Your task to perform on an android device: Go to location settings Image 0: 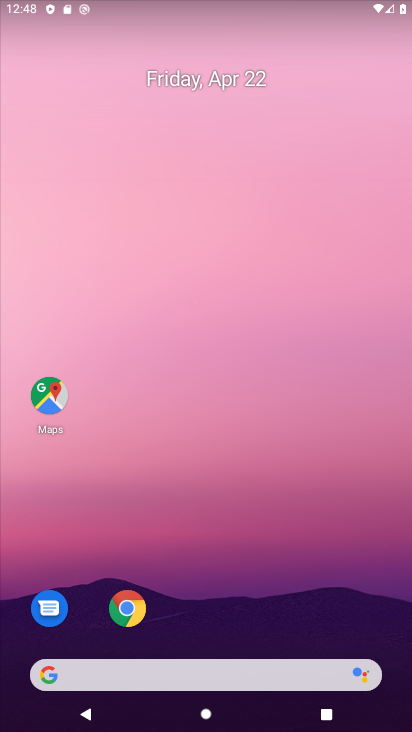
Step 0: drag from (389, 656) to (329, 142)
Your task to perform on an android device: Go to location settings Image 1: 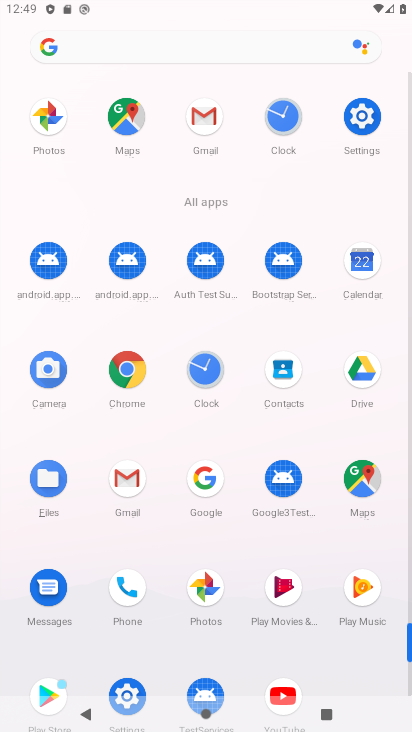
Step 1: click (408, 689)
Your task to perform on an android device: Go to location settings Image 2: 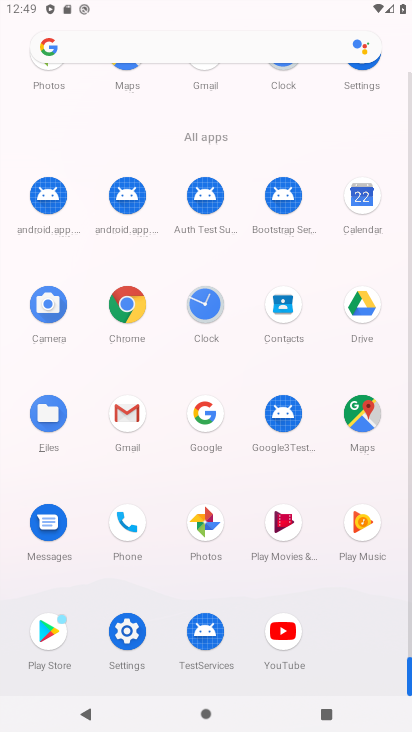
Step 2: click (122, 630)
Your task to perform on an android device: Go to location settings Image 3: 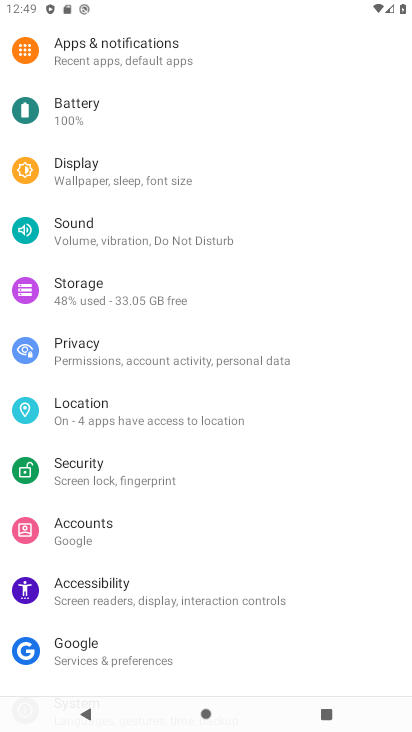
Step 3: click (97, 407)
Your task to perform on an android device: Go to location settings Image 4: 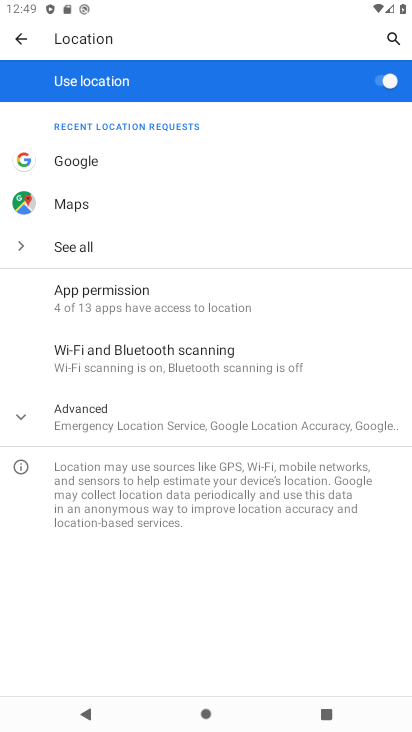
Step 4: task complete